Your task to perform on an android device: Go to Android settings Image 0: 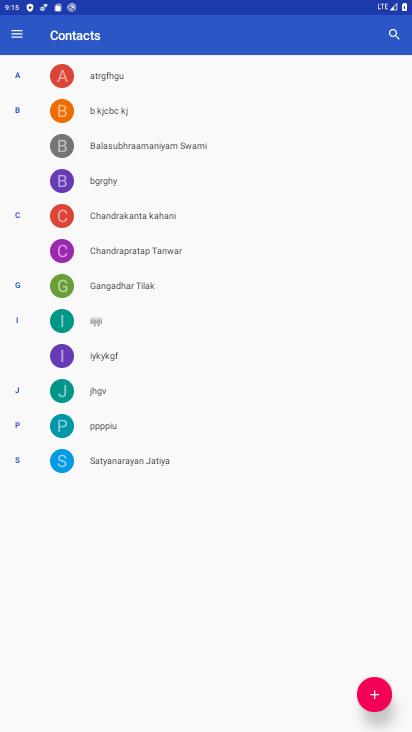
Step 0: press home button
Your task to perform on an android device: Go to Android settings Image 1: 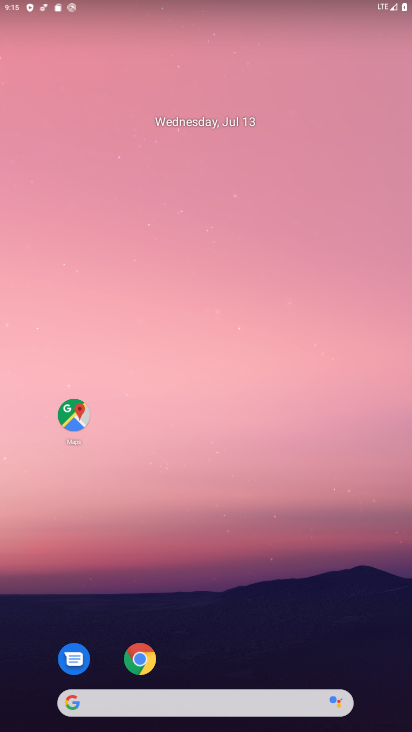
Step 1: drag from (378, 655) to (354, 122)
Your task to perform on an android device: Go to Android settings Image 2: 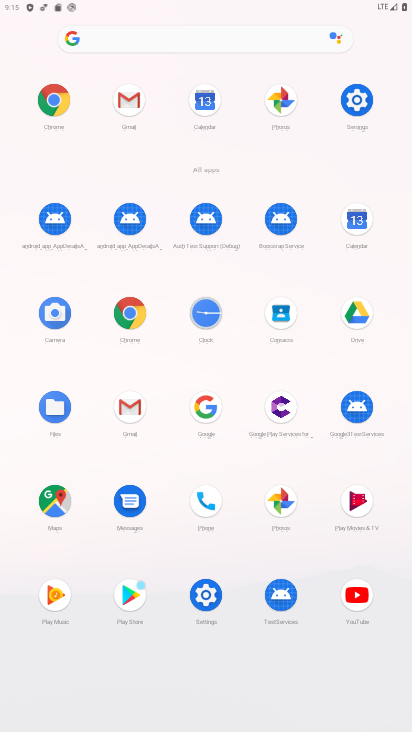
Step 2: click (205, 596)
Your task to perform on an android device: Go to Android settings Image 3: 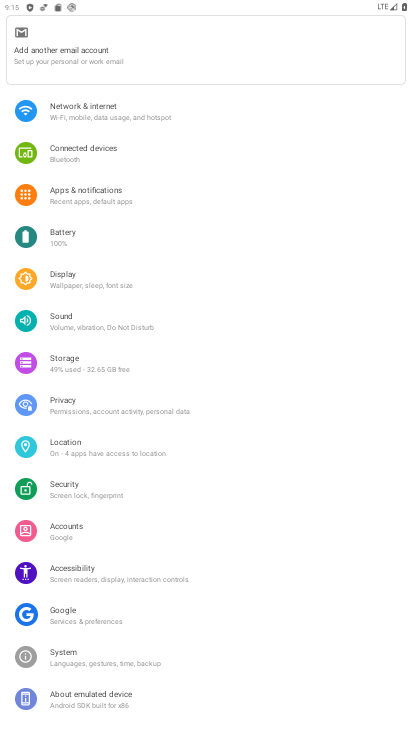
Step 3: click (58, 702)
Your task to perform on an android device: Go to Android settings Image 4: 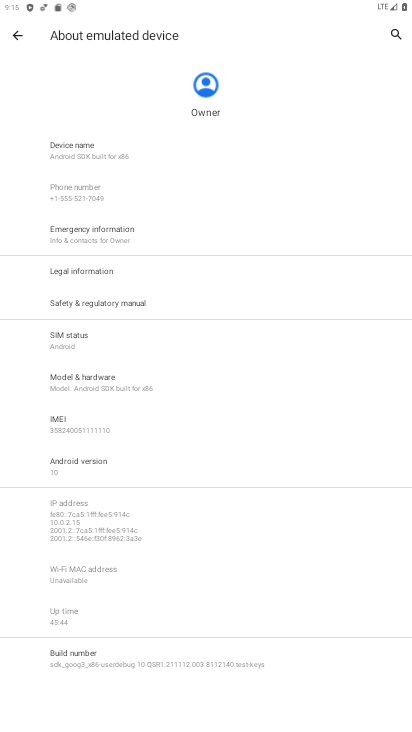
Step 4: task complete